Your task to perform on an android device: turn notification dots off Image 0: 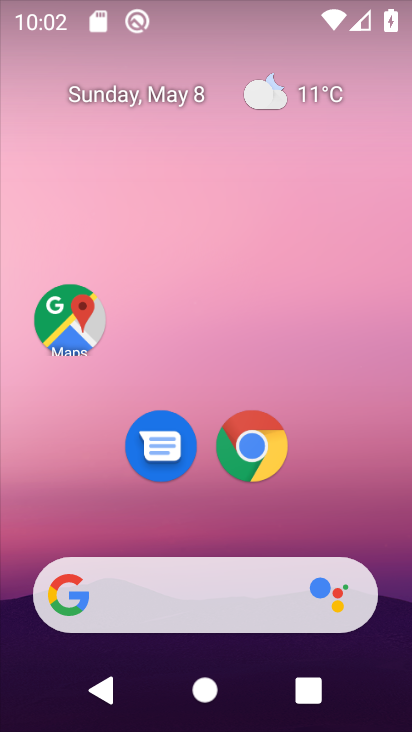
Step 0: drag from (358, 404) to (362, 10)
Your task to perform on an android device: turn notification dots off Image 1: 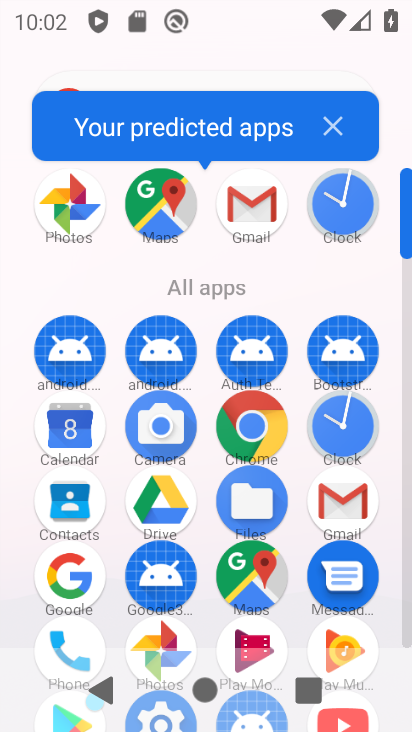
Step 1: drag from (405, 586) to (408, 540)
Your task to perform on an android device: turn notification dots off Image 2: 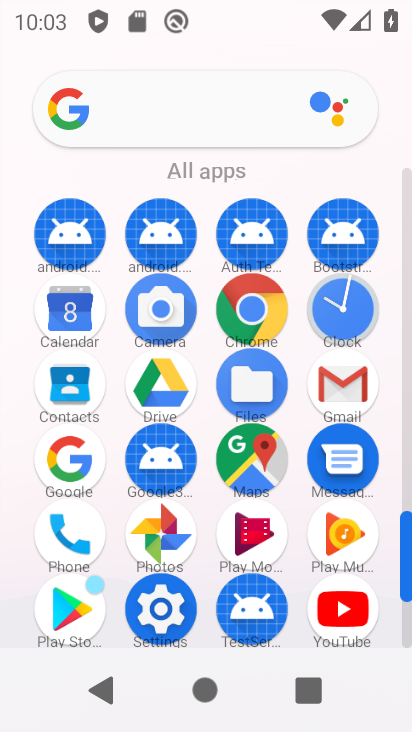
Step 2: click (161, 614)
Your task to perform on an android device: turn notification dots off Image 3: 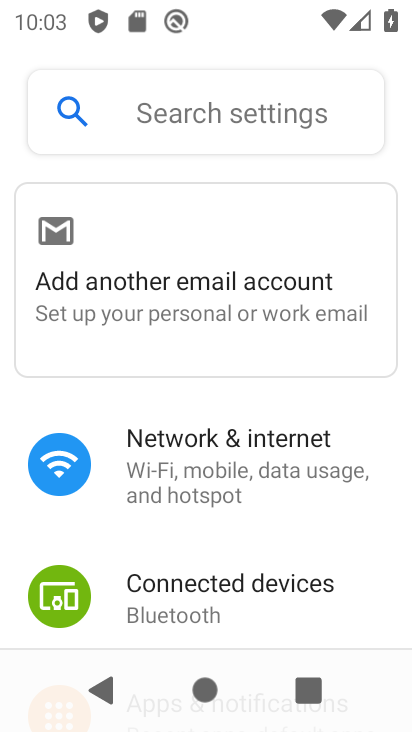
Step 3: drag from (354, 546) to (362, 252)
Your task to perform on an android device: turn notification dots off Image 4: 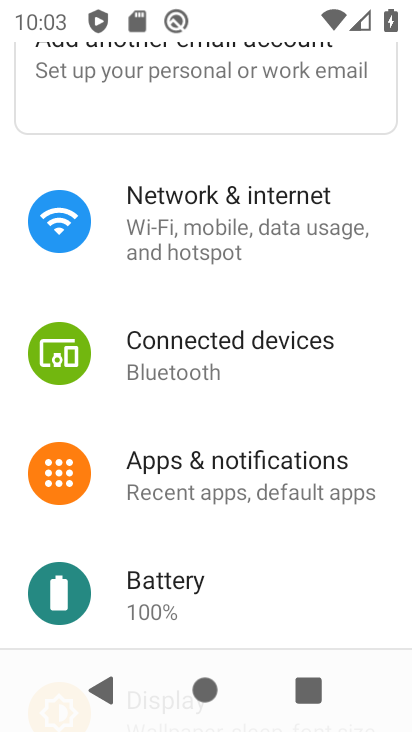
Step 4: click (168, 477)
Your task to perform on an android device: turn notification dots off Image 5: 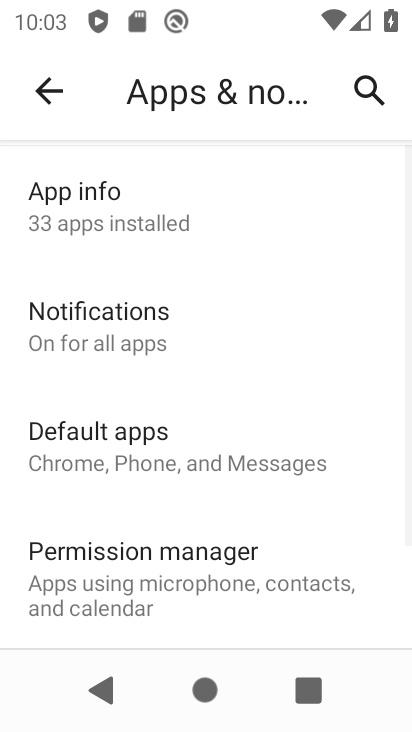
Step 5: click (297, 279)
Your task to perform on an android device: turn notification dots off Image 6: 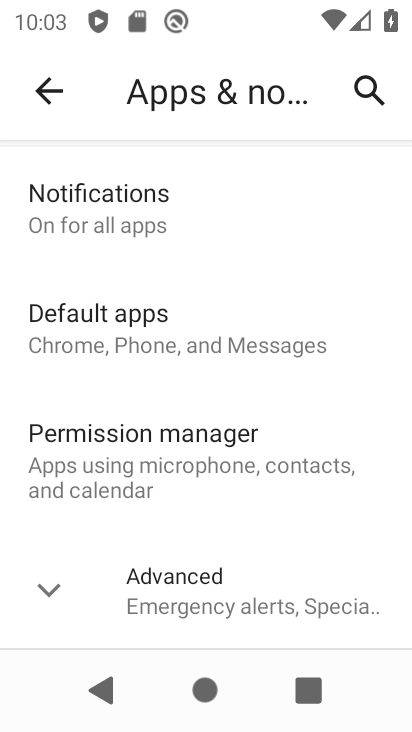
Step 6: click (120, 215)
Your task to perform on an android device: turn notification dots off Image 7: 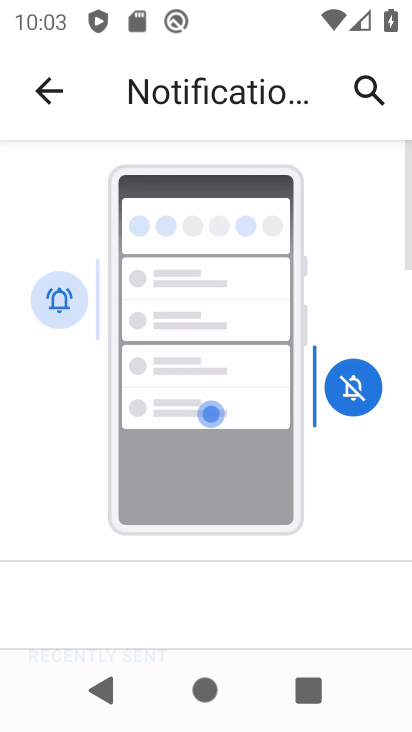
Step 7: drag from (227, 483) to (240, 28)
Your task to perform on an android device: turn notification dots off Image 8: 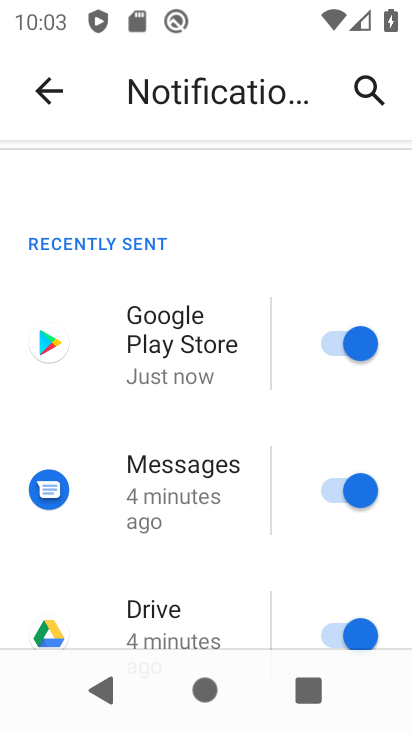
Step 8: drag from (267, 523) to (286, 72)
Your task to perform on an android device: turn notification dots off Image 9: 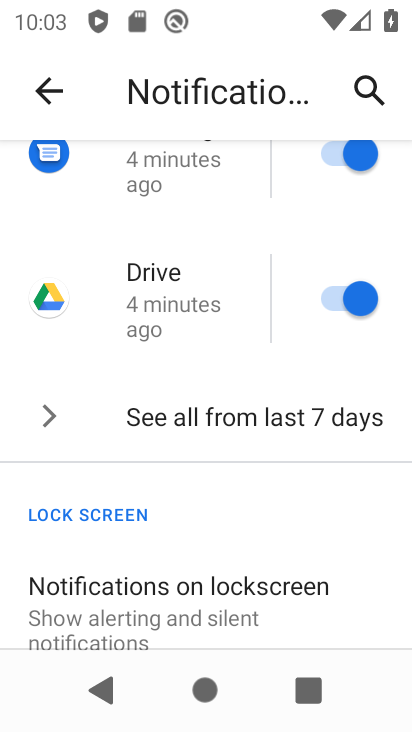
Step 9: drag from (212, 512) to (200, 122)
Your task to perform on an android device: turn notification dots off Image 10: 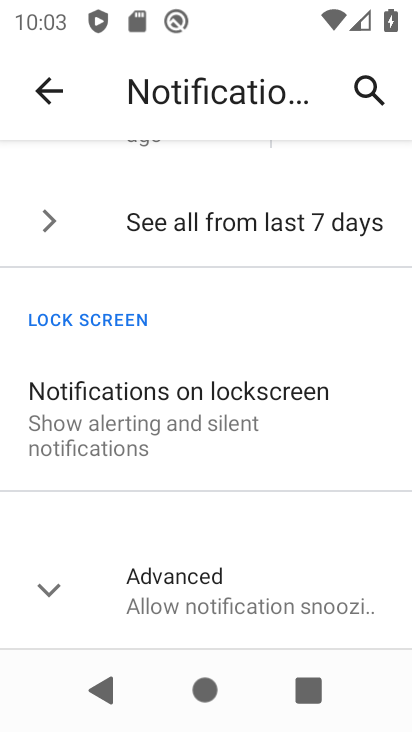
Step 10: click (55, 605)
Your task to perform on an android device: turn notification dots off Image 11: 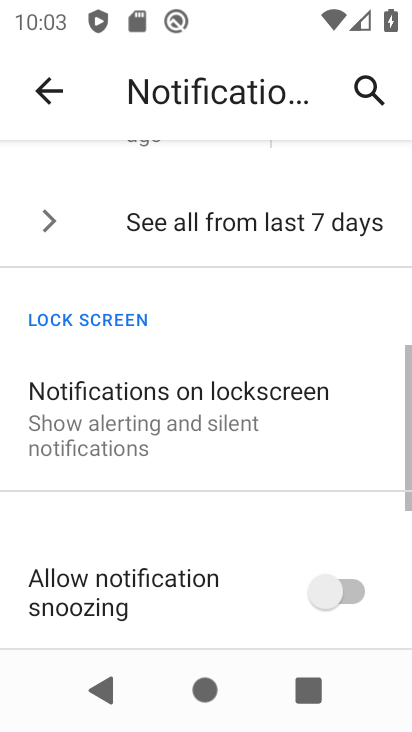
Step 11: drag from (165, 601) to (217, 63)
Your task to perform on an android device: turn notification dots off Image 12: 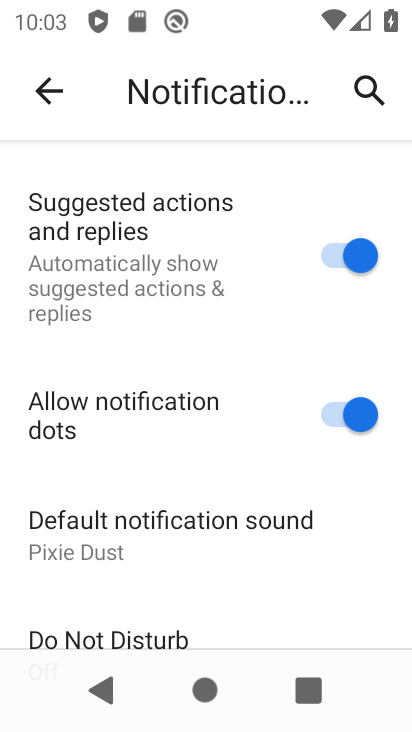
Step 12: click (353, 420)
Your task to perform on an android device: turn notification dots off Image 13: 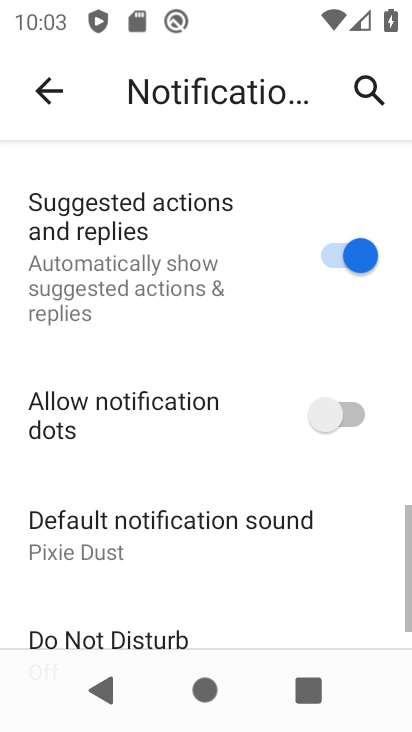
Step 13: task complete